Your task to perform on an android device: What's the weather going to be tomorrow? Image 0: 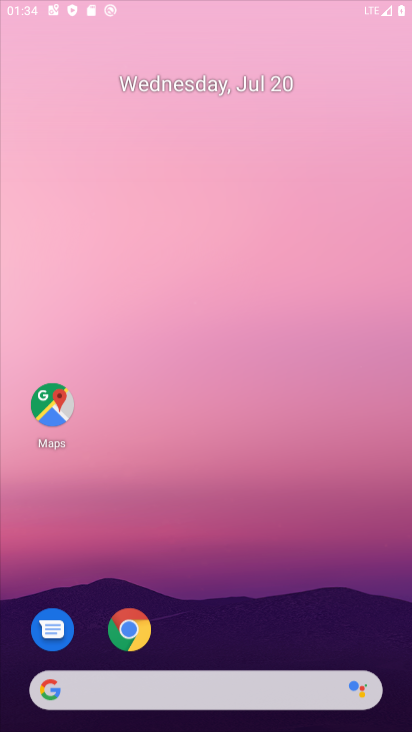
Step 0: drag from (214, 76) to (216, 34)
Your task to perform on an android device: What's the weather going to be tomorrow? Image 1: 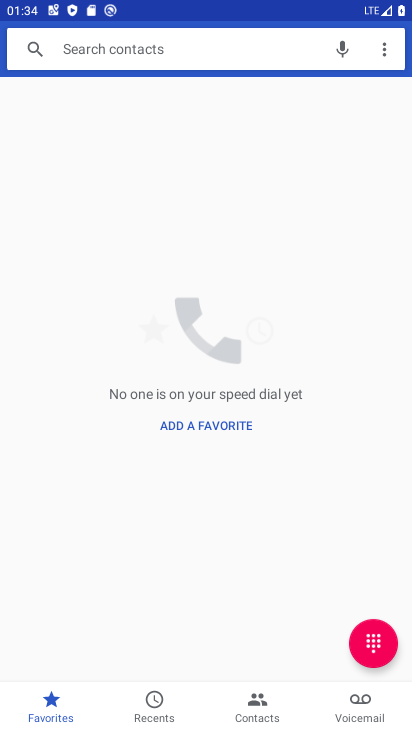
Step 1: press home button
Your task to perform on an android device: What's the weather going to be tomorrow? Image 2: 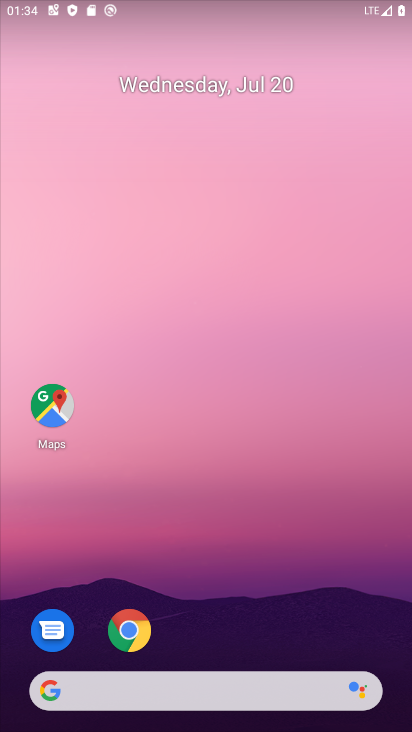
Step 2: drag from (267, 598) to (207, 156)
Your task to perform on an android device: What's the weather going to be tomorrow? Image 3: 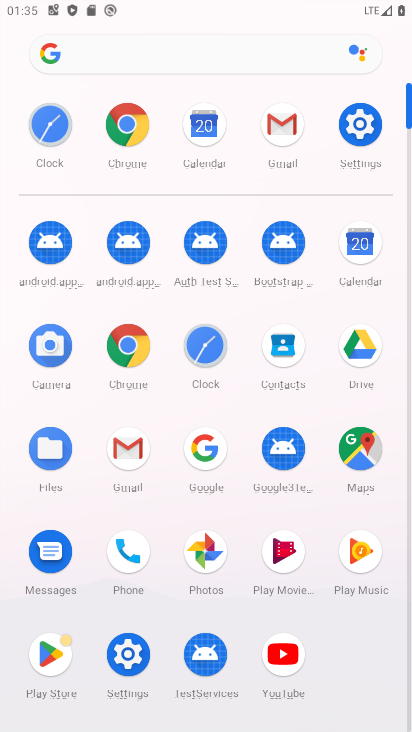
Step 3: click (132, 348)
Your task to perform on an android device: What's the weather going to be tomorrow? Image 4: 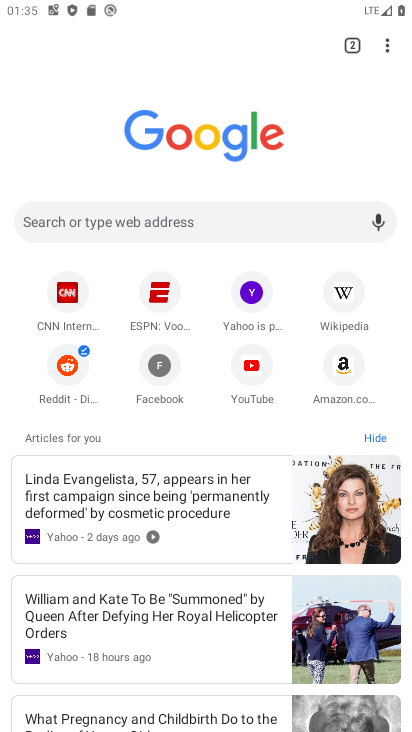
Step 4: click (239, 229)
Your task to perform on an android device: What's the weather going to be tomorrow? Image 5: 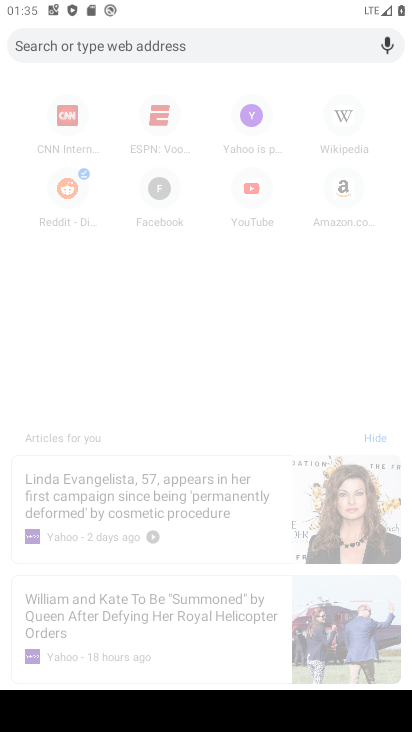
Step 5: type "weather"
Your task to perform on an android device: What's the weather going to be tomorrow? Image 6: 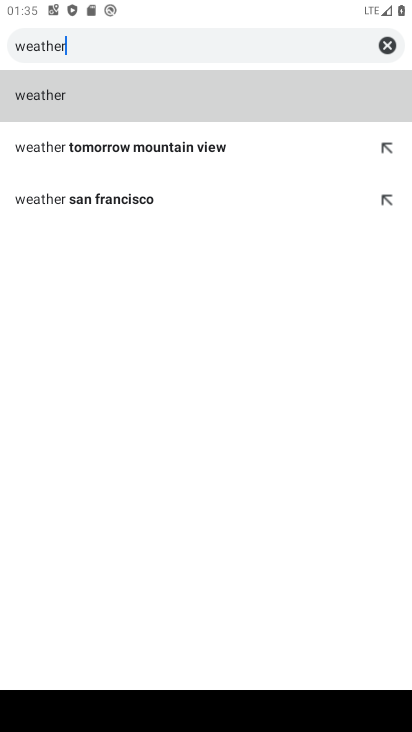
Step 6: click (74, 102)
Your task to perform on an android device: What's the weather going to be tomorrow? Image 7: 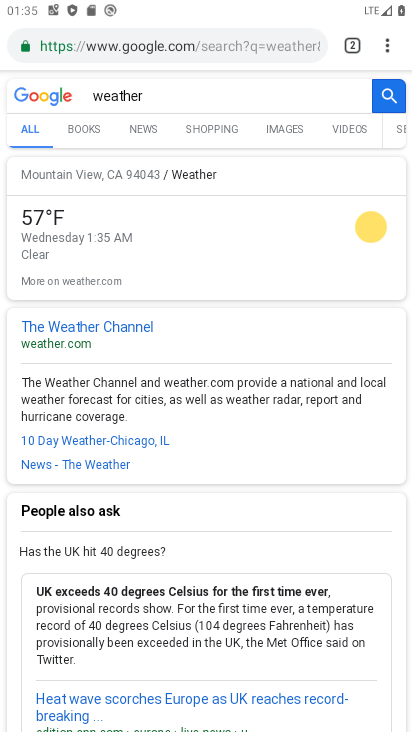
Step 7: click (160, 96)
Your task to perform on an android device: What's the weather going to be tomorrow? Image 8: 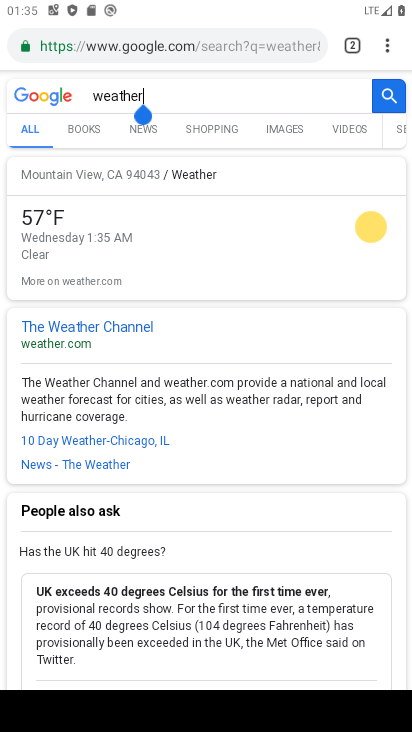
Step 8: type " tommorow"
Your task to perform on an android device: What's the weather going to be tomorrow? Image 9: 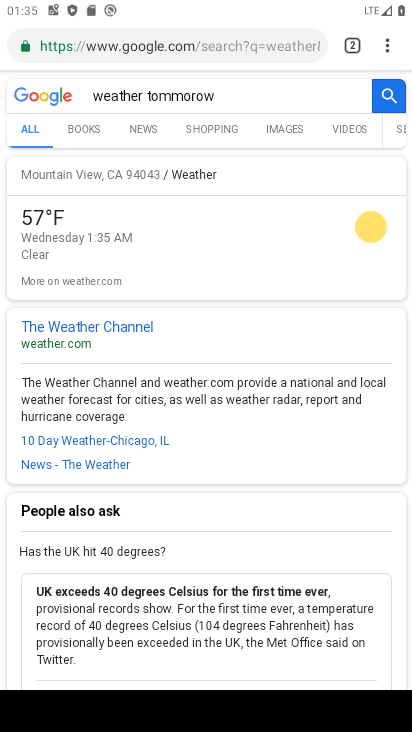
Step 9: click (387, 94)
Your task to perform on an android device: What's the weather going to be tomorrow? Image 10: 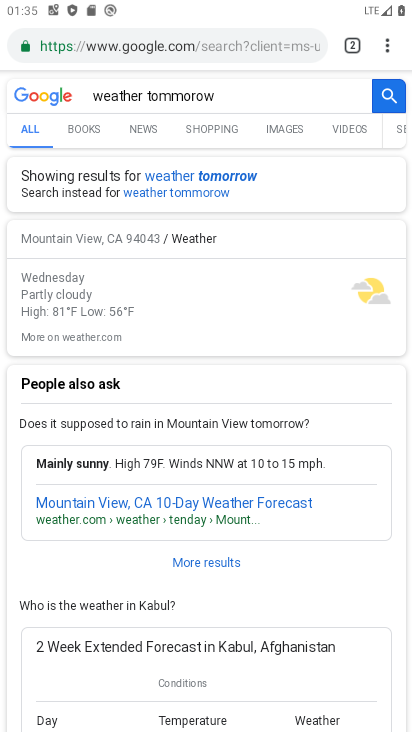
Step 10: click (241, 175)
Your task to perform on an android device: What's the weather going to be tomorrow? Image 11: 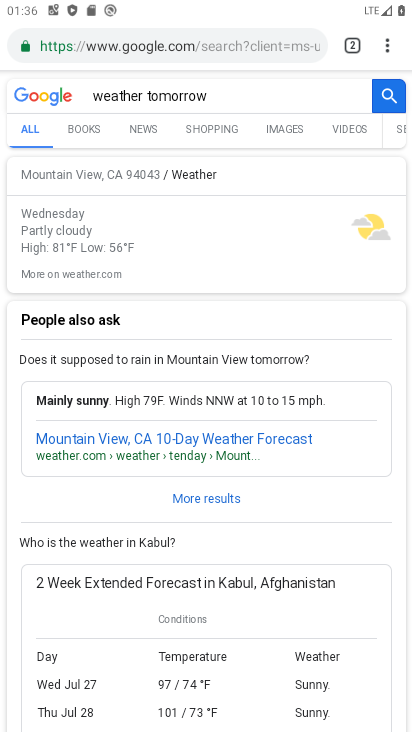
Step 11: task complete